Your task to perform on an android device: turn on bluetooth scan Image 0: 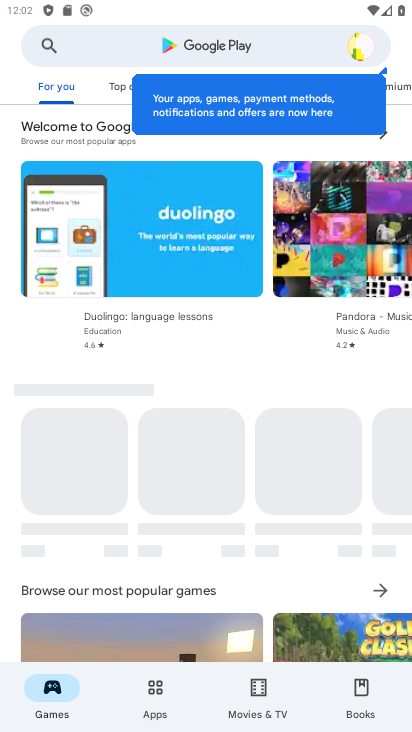
Step 0: press home button
Your task to perform on an android device: turn on bluetooth scan Image 1: 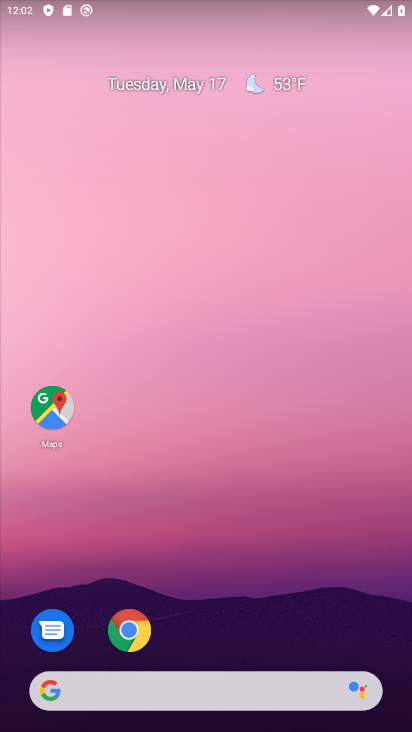
Step 1: drag from (227, 639) to (246, 90)
Your task to perform on an android device: turn on bluetooth scan Image 2: 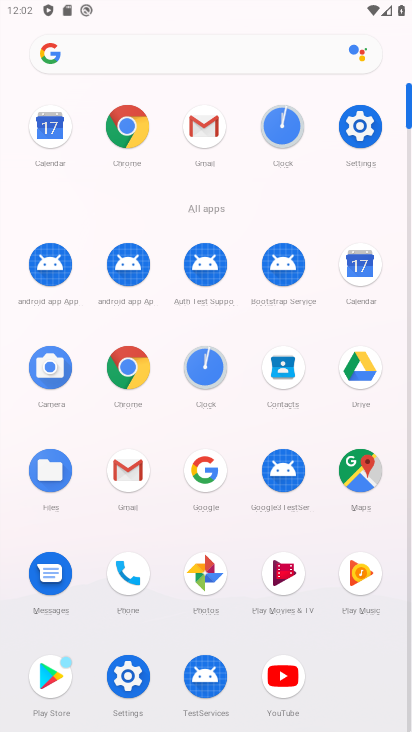
Step 2: click (354, 134)
Your task to perform on an android device: turn on bluetooth scan Image 3: 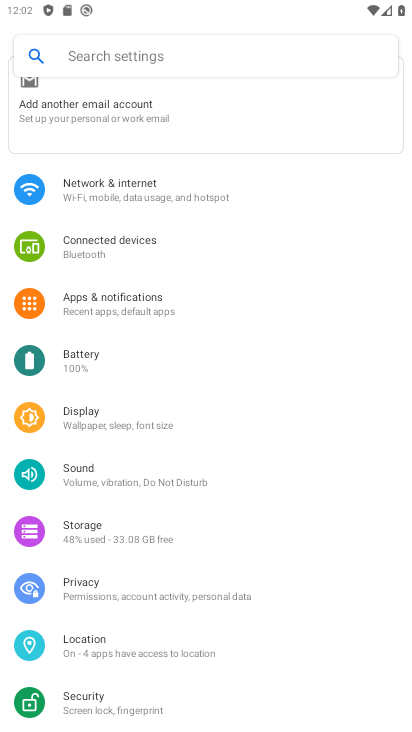
Step 3: click (143, 257)
Your task to perform on an android device: turn on bluetooth scan Image 4: 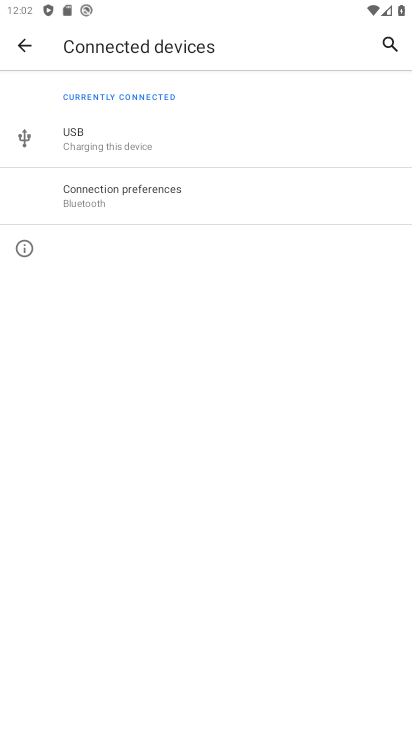
Step 4: click (196, 189)
Your task to perform on an android device: turn on bluetooth scan Image 5: 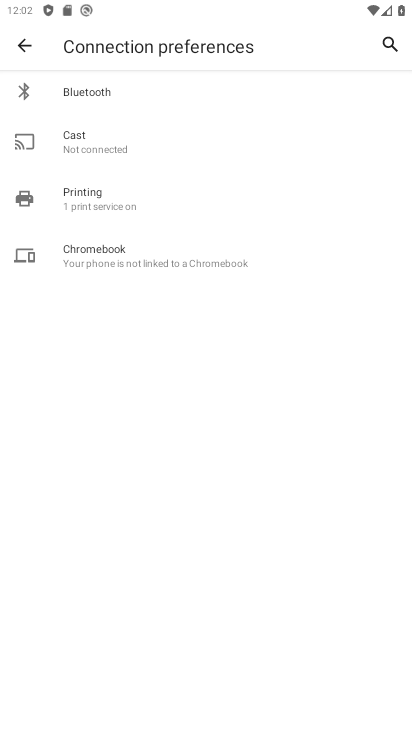
Step 5: click (218, 96)
Your task to perform on an android device: turn on bluetooth scan Image 6: 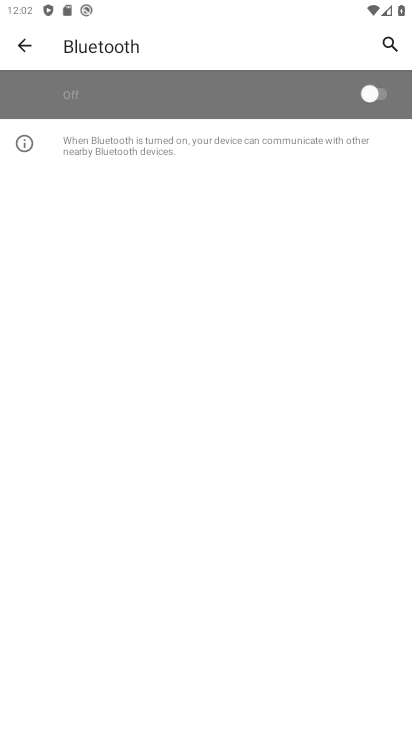
Step 6: click (294, 105)
Your task to perform on an android device: turn on bluetooth scan Image 7: 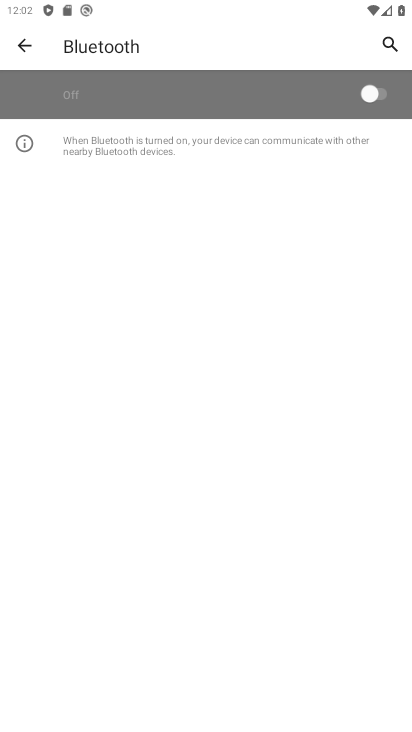
Step 7: task complete